Your task to perform on an android device: Is it going to rain today? Image 0: 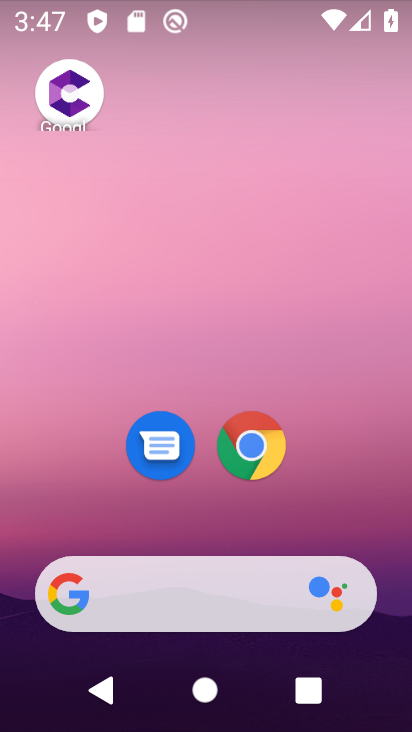
Step 0: drag from (233, 709) to (234, 146)
Your task to perform on an android device: Is it going to rain today? Image 1: 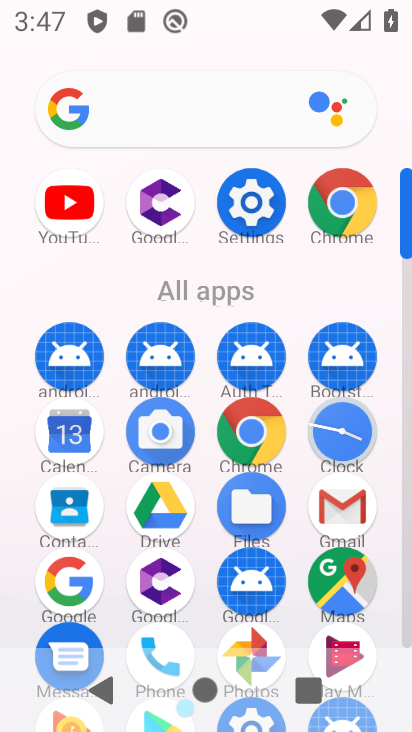
Step 1: click (68, 579)
Your task to perform on an android device: Is it going to rain today? Image 2: 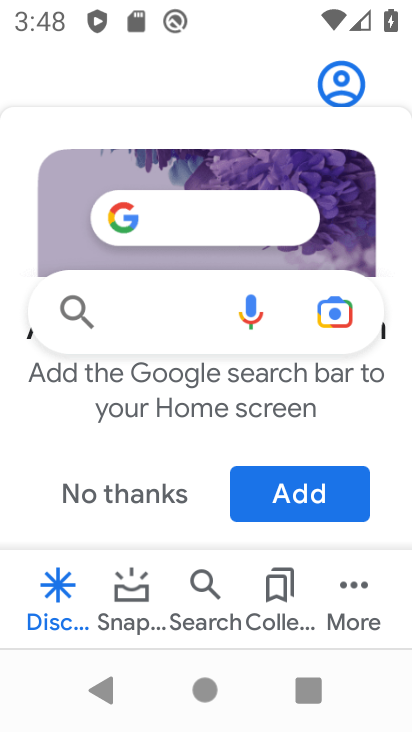
Step 2: click (160, 318)
Your task to perform on an android device: Is it going to rain today? Image 3: 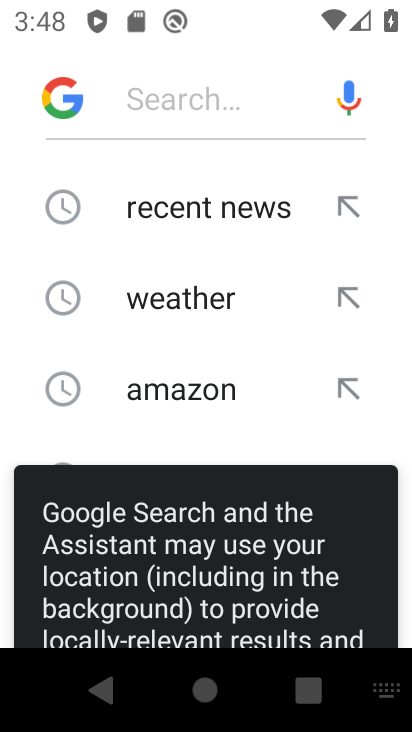
Step 3: click (161, 298)
Your task to perform on an android device: Is it going to rain today? Image 4: 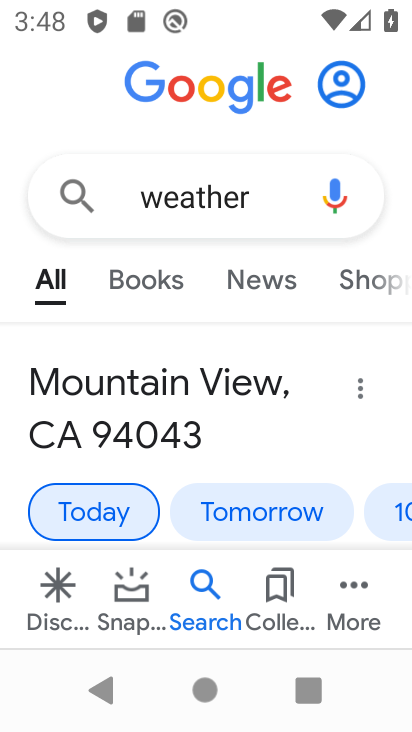
Step 4: task complete